Your task to perform on an android device: change alarm snooze length Image 0: 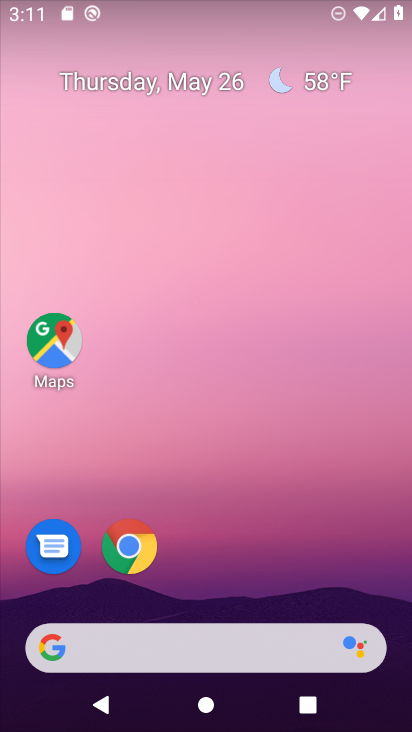
Step 0: press home button
Your task to perform on an android device: change alarm snooze length Image 1: 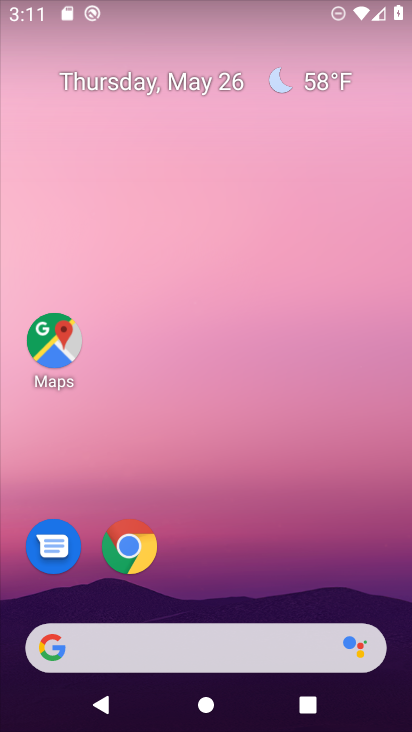
Step 1: drag from (216, 595) to (228, 82)
Your task to perform on an android device: change alarm snooze length Image 2: 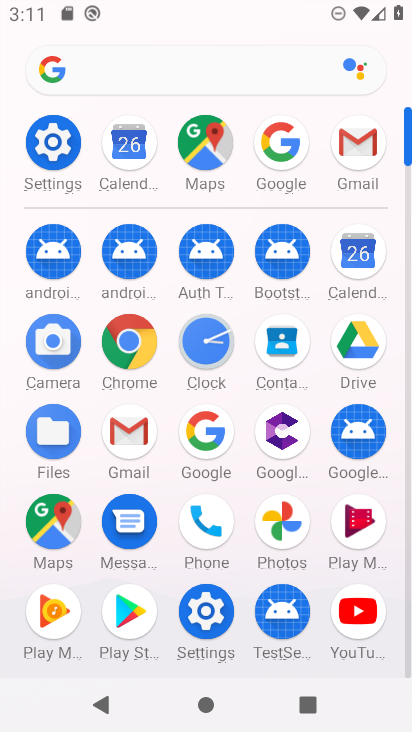
Step 2: click (209, 336)
Your task to perform on an android device: change alarm snooze length Image 3: 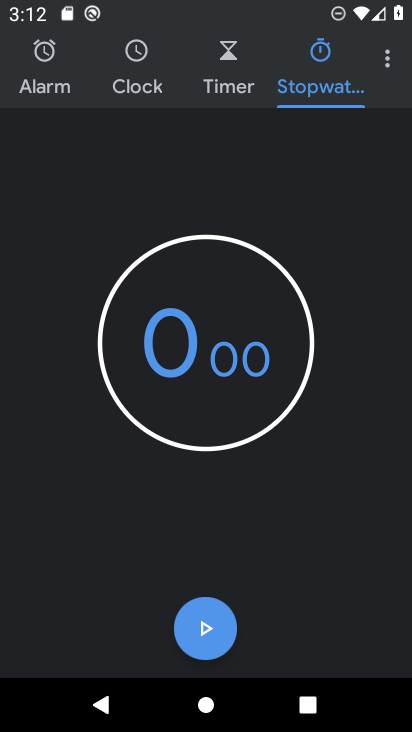
Step 3: click (388, 57)
Your task to perform on an android device: change alarm snooze length Image 4: 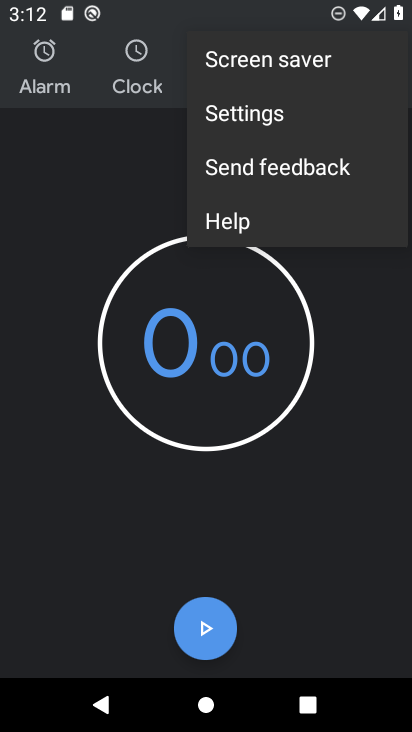
Step 4: click (296, 116)
Your task to perform on an android device: change alarm snooze length Image 5: 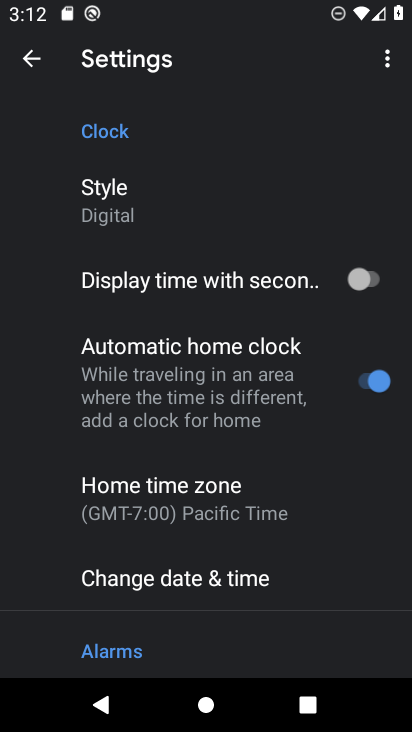
Step 5: drag from (234, 645) to (236, 164)
Your task to perform on an android device: change alarm snooze length Image 6: 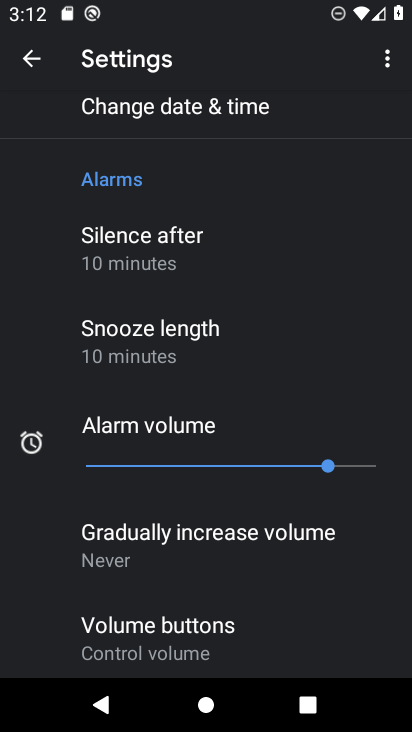
Step 6: click (235, 337)
Your task to perform on an android device: change alarm snooze length Image 7: 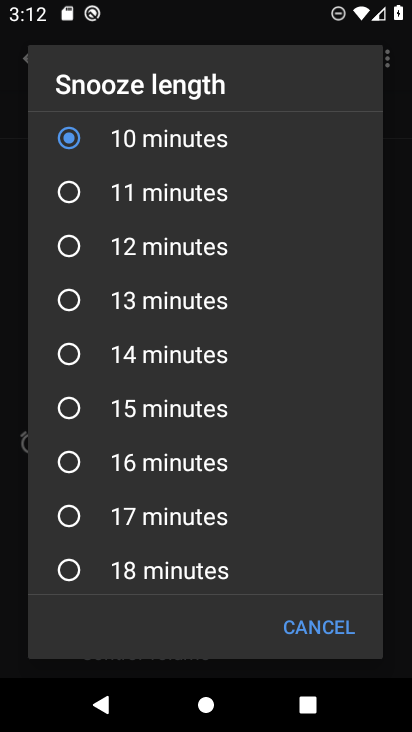
Step 7: drag from (145, 209) to (164, 527)
Your task to perform on an android device: change alarm snooze length Image 8: 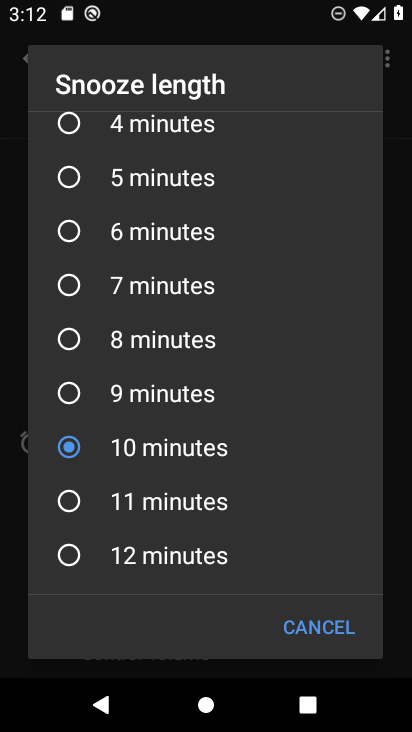
Step 8: click (72, 232)
Your task to perform on an android device: change alarm snooze length Image 9: 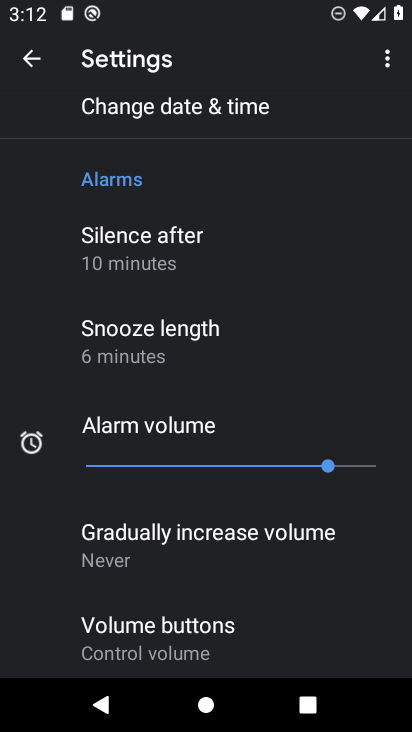
Step 9: task complete